Your task to perform on an android device: Go to Amazon Image 0: 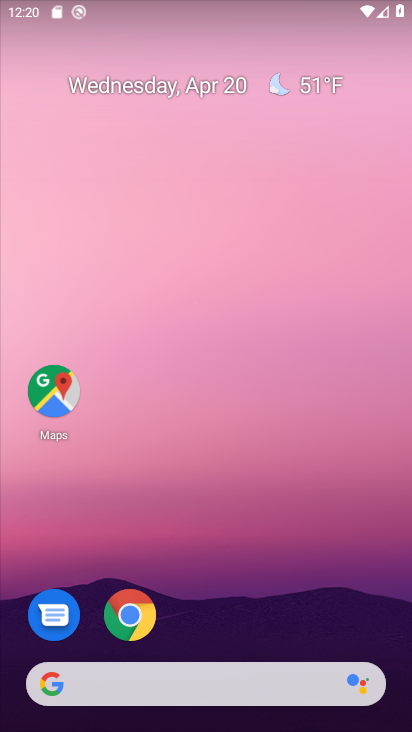
Step 0: click (137, 627)
Your task to perform on an android device: Go to Amazon Image 1: 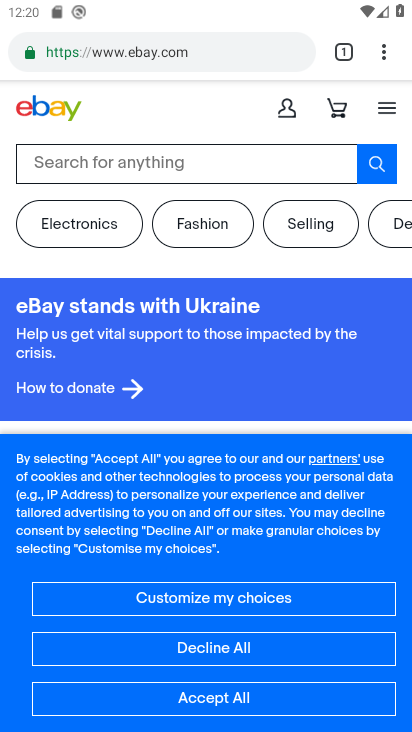
Step 1: click (209, 56)
Your task to perform on an android device: Go to Amazon Image 2: 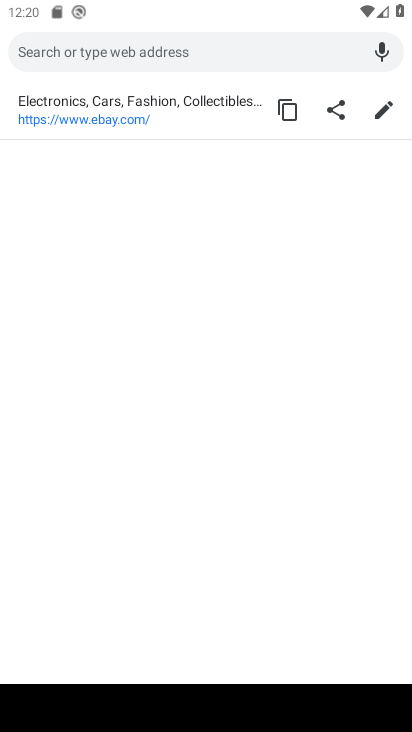
Step 2: type "amazon"
Your task to perform on an android device: Go to Amazon Image 3: 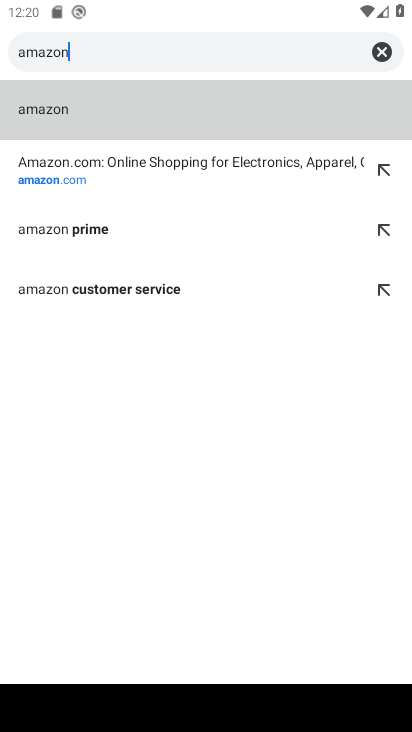
Step 3: click (106, 175)
Your task to perform on an android device: Go to Amazon Image 4: 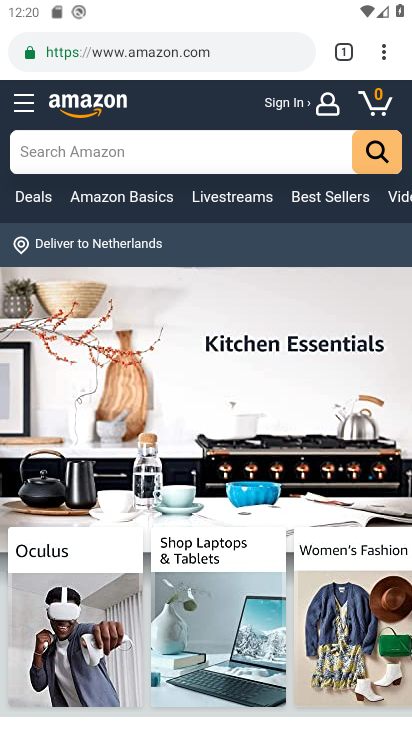
Step 4: task complete